Your task to perform on an android device: Open calendar and show me the first week of next month Image 0: 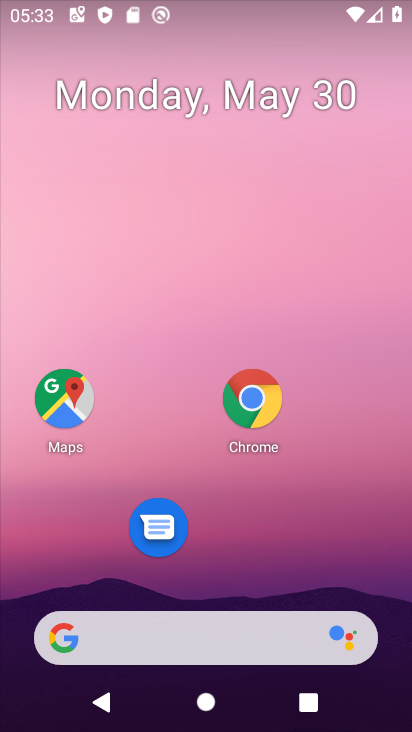
Step 0: drag from (245, 720) to (235, 133)
Your task to perform on an android device: Open calendar and show me the first week of next month Image 1: 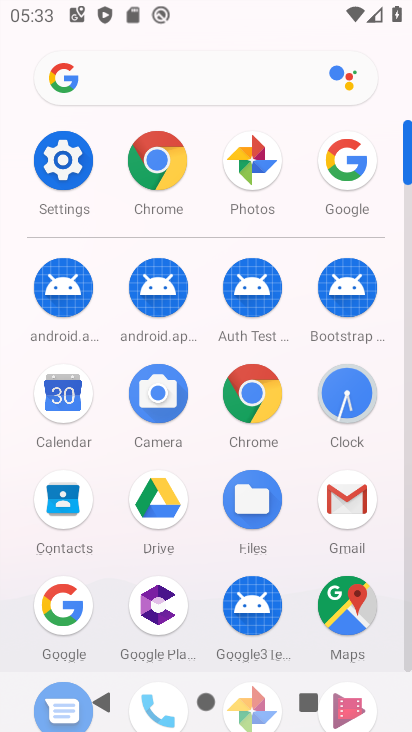
Step 1: click (63, 406)
Your task to perform on an android device: Open calendar and show me the first week of next month Image 2: 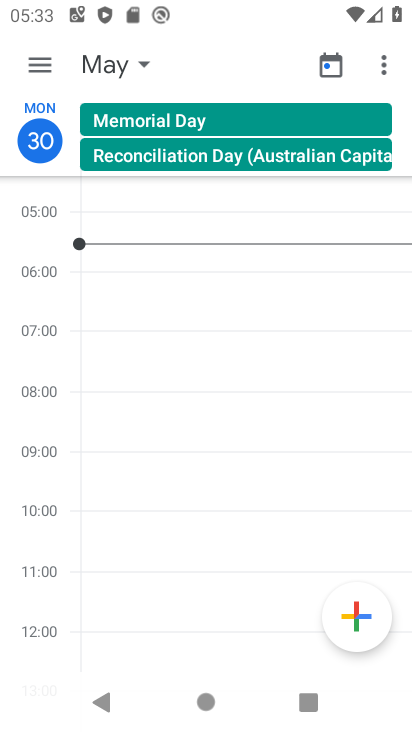
Step 2: click (128, 57)
Your task to perform on an android device: Open calendar and show me the first week of next month Image 3: 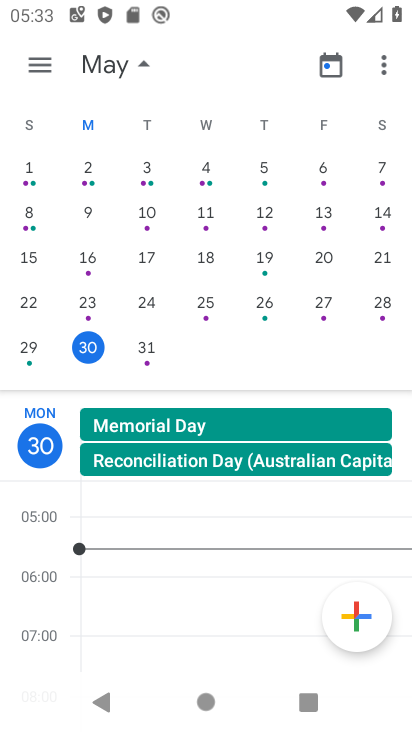
Step 3: drag from (376, 306) to (2, 314)
Your task to perform on an android device: Open calendar and show me the first week of next month Image 4: 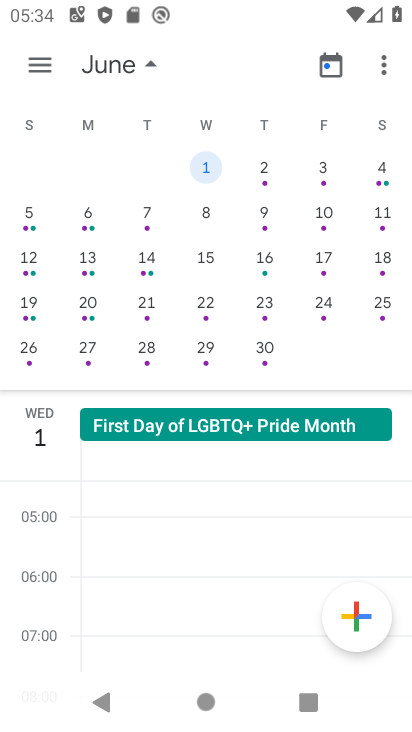
Step 4: click (87, 211)
Your task to perform on an android device: Open calendar and show me the first week of next month Image 5: 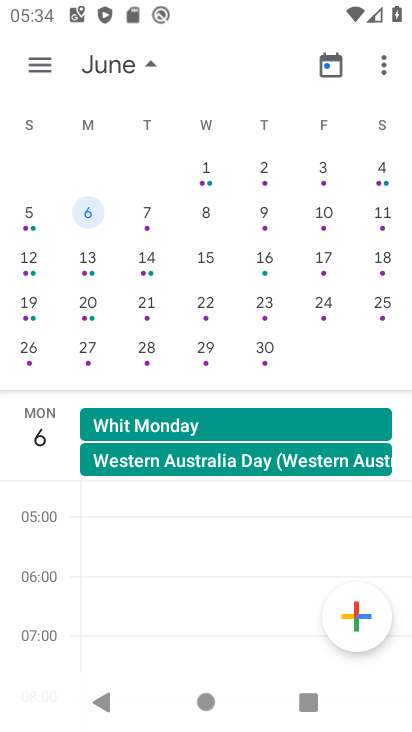
Step 5: click (31, 62)
Your task to perform on an android device: Open calendar and show me the first week of next month Image 6: 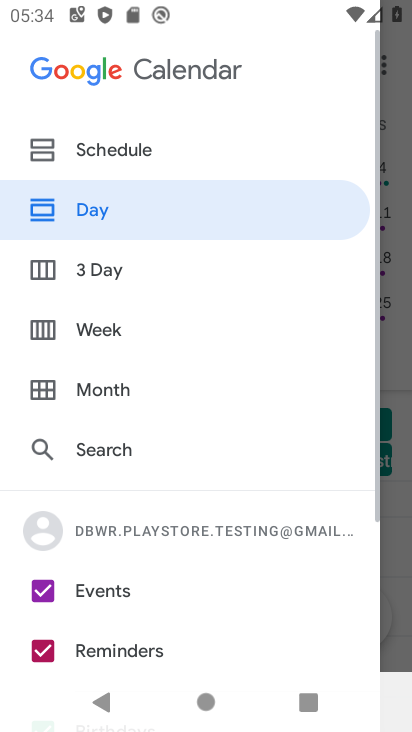
Step 6: click (96, 322)
Your task to perform on an android device: Open calendar and show me the first week of next month Image 7: 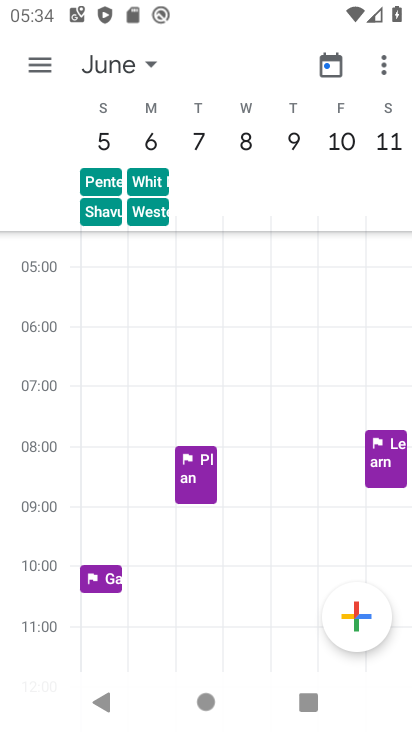
Step 7: task complete